Your task to perform on an android device: Clear all items from cart on bestbuy. Add "alienware area 51" to the cart on bestbuy, then select checkout. Image 0: 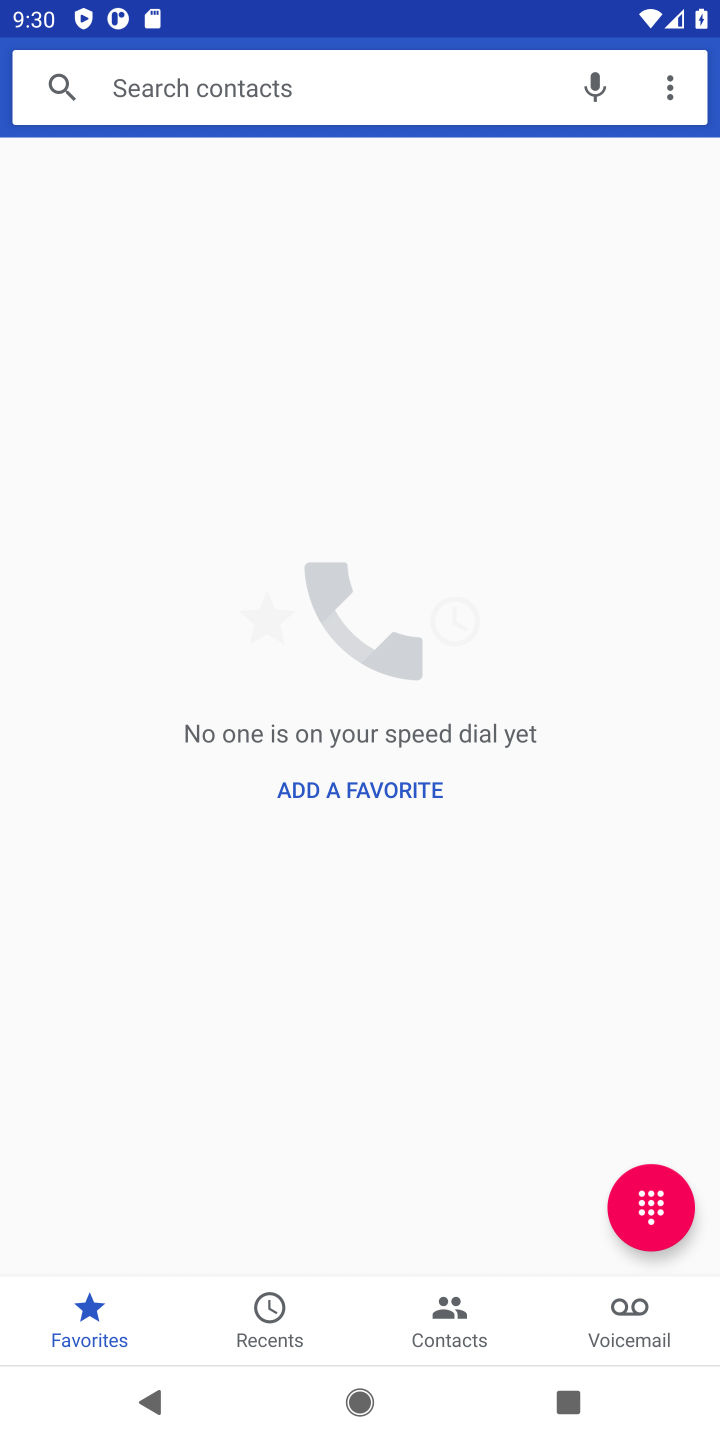
Step 0: press home button
Your task to perform on an android device: Clear all items from cart on bestbuy. Add "alienware area 51" to the cart on bestbuy, then select checkout. Image 1: 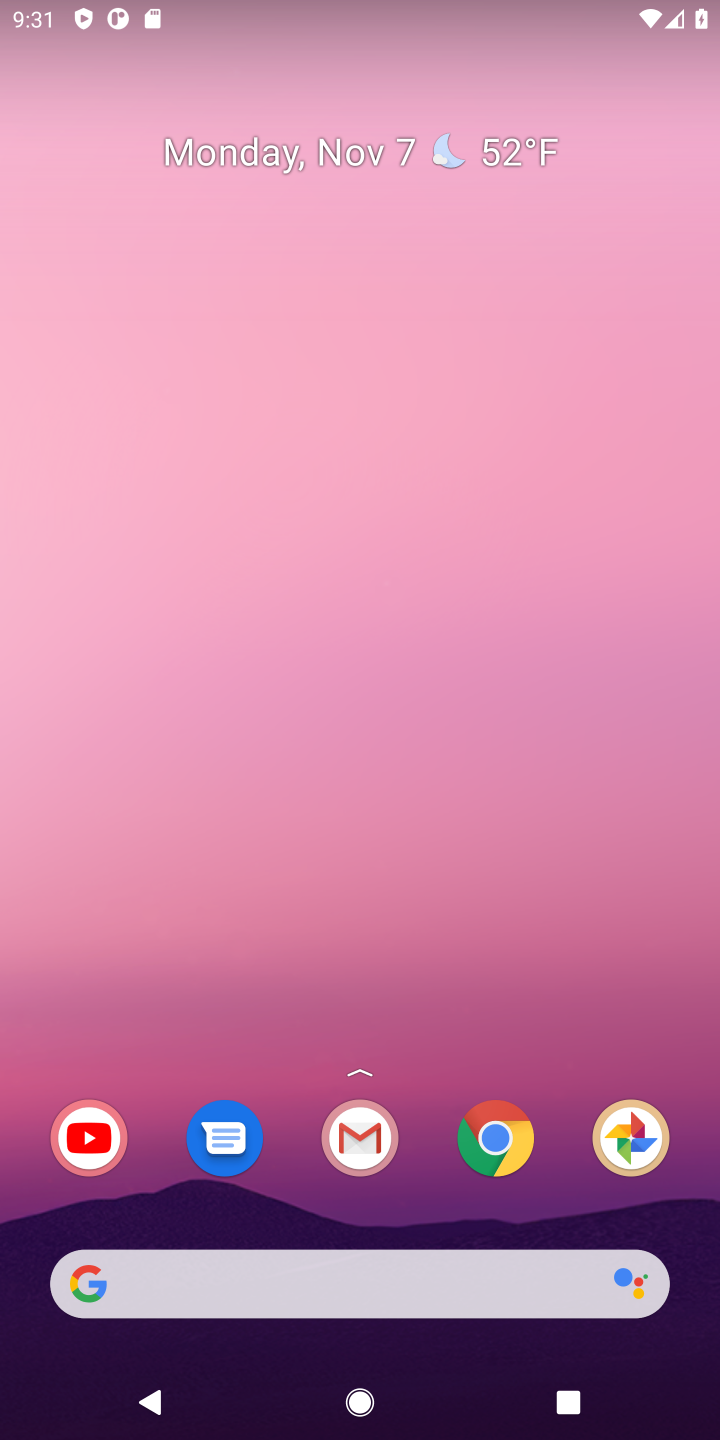
Step 1: drag from (441, 1148) to (480, 339)
Your task to perform on an android device: Clear all items from cart on bestbuy. Add "alienware area 51" to the cart on bestbuy, then select checkout. Image 2: 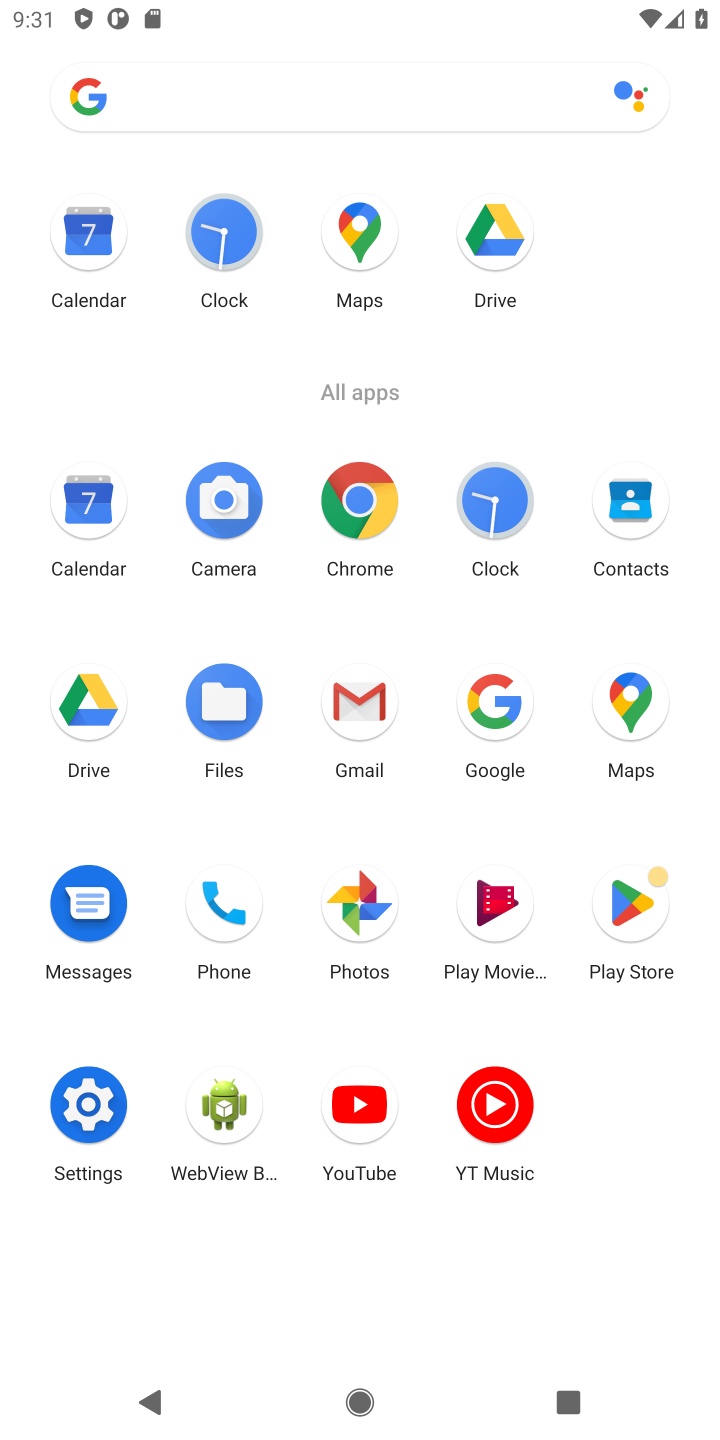
Step 2: click (499, 724)
Your task to perform on an android device: Clear all items from cart on bestbuy. Add "alienware area 51" to the cart on bestbuy, then select checkout. Image 3: 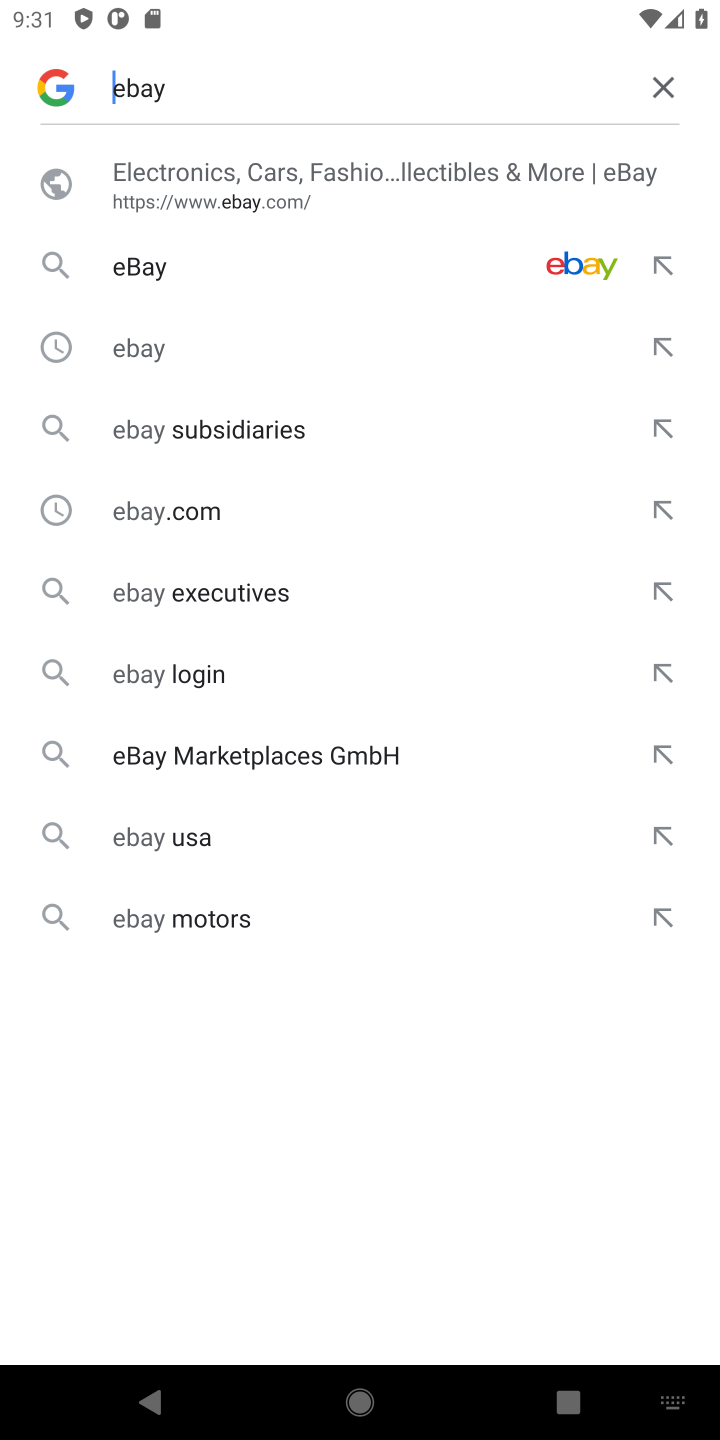
Step 3: click (672, 96)
Your task to perform on an android device: Clear all items from cart on bestbuy. Add "alienware area 51" to the cart on bestbuy, then select checkout. Image 4: 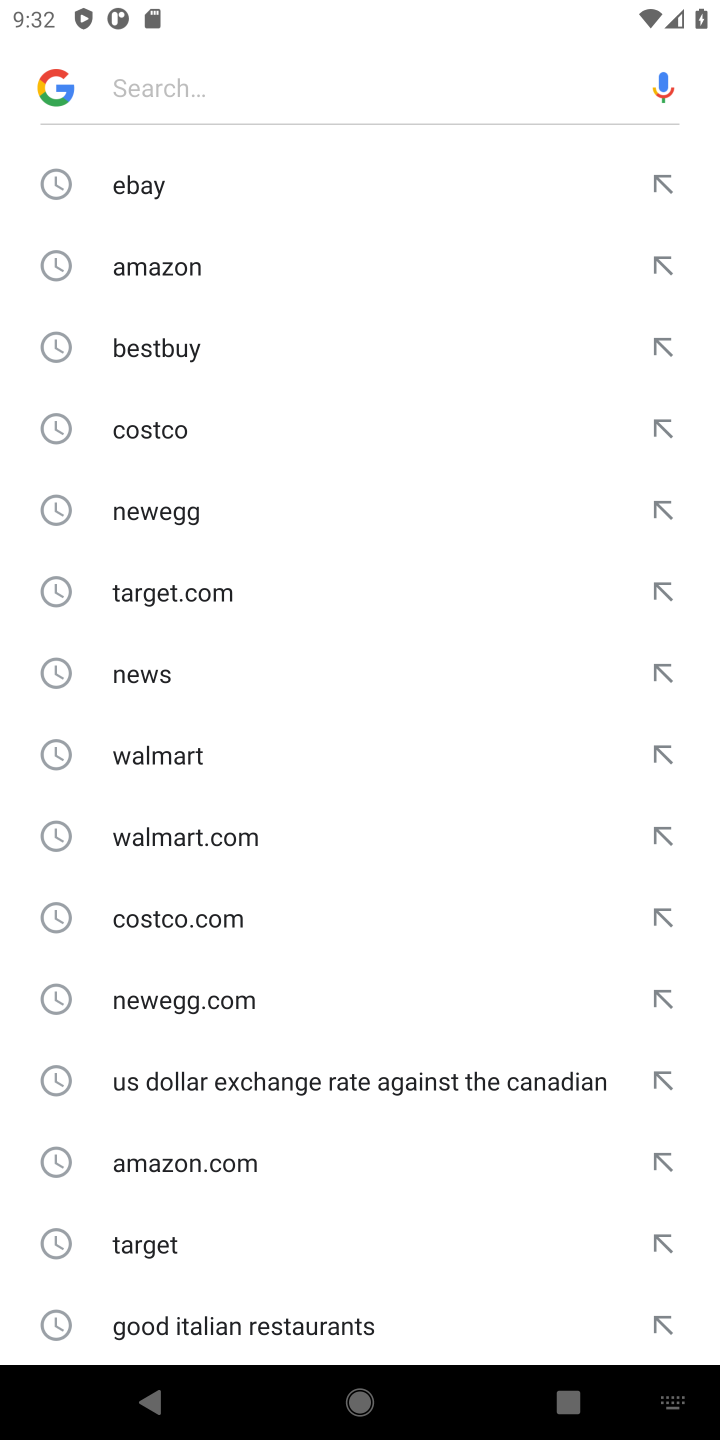
Step 4: type "bestbuy"
Your task to perform on an android device: Clear all items from cart on bestbuy. Add "alienware area 51" to the cart on bestbuy, then select checkout. Image 5: 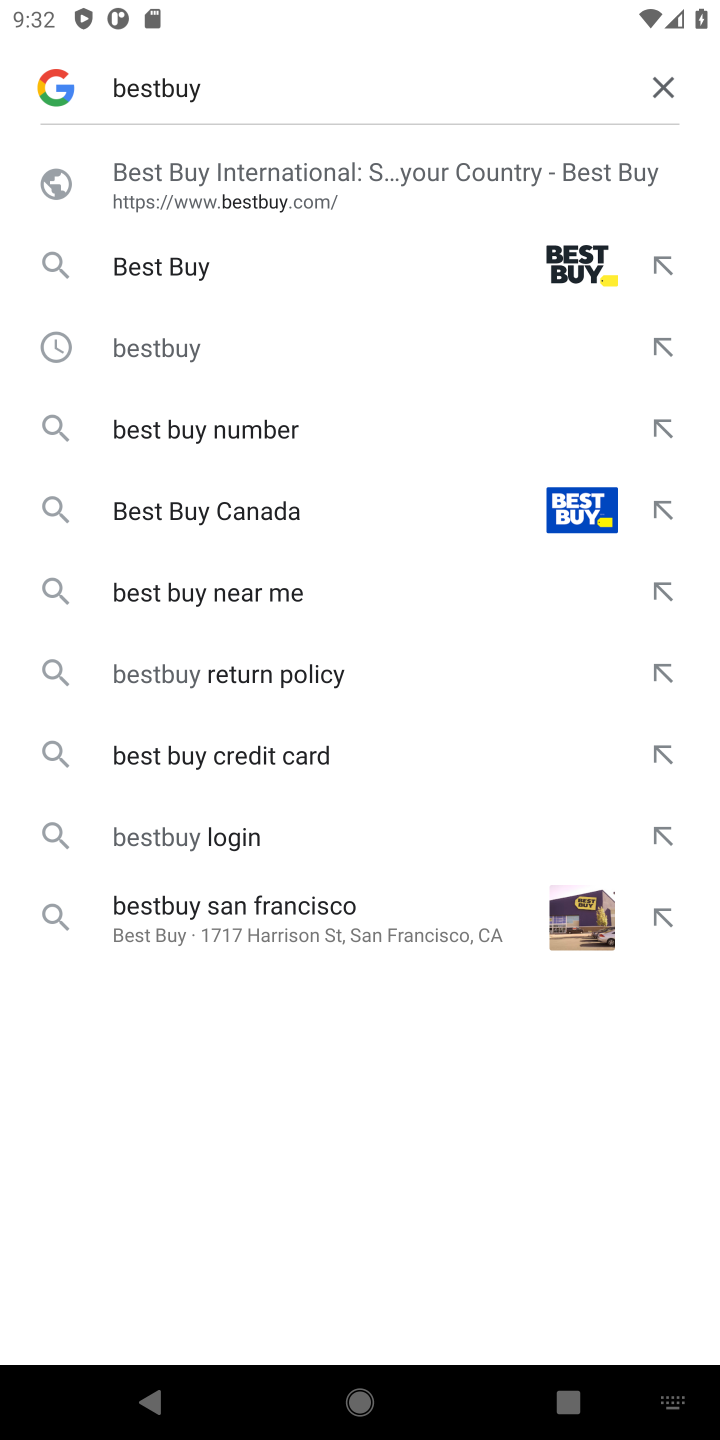
Step 5: click (272, 193)
Your task to perform on an android device: Clear all items from cart on bestbuy. Add "alienware area 51" to the cart on bestbuy, then select checkout. Image 6: 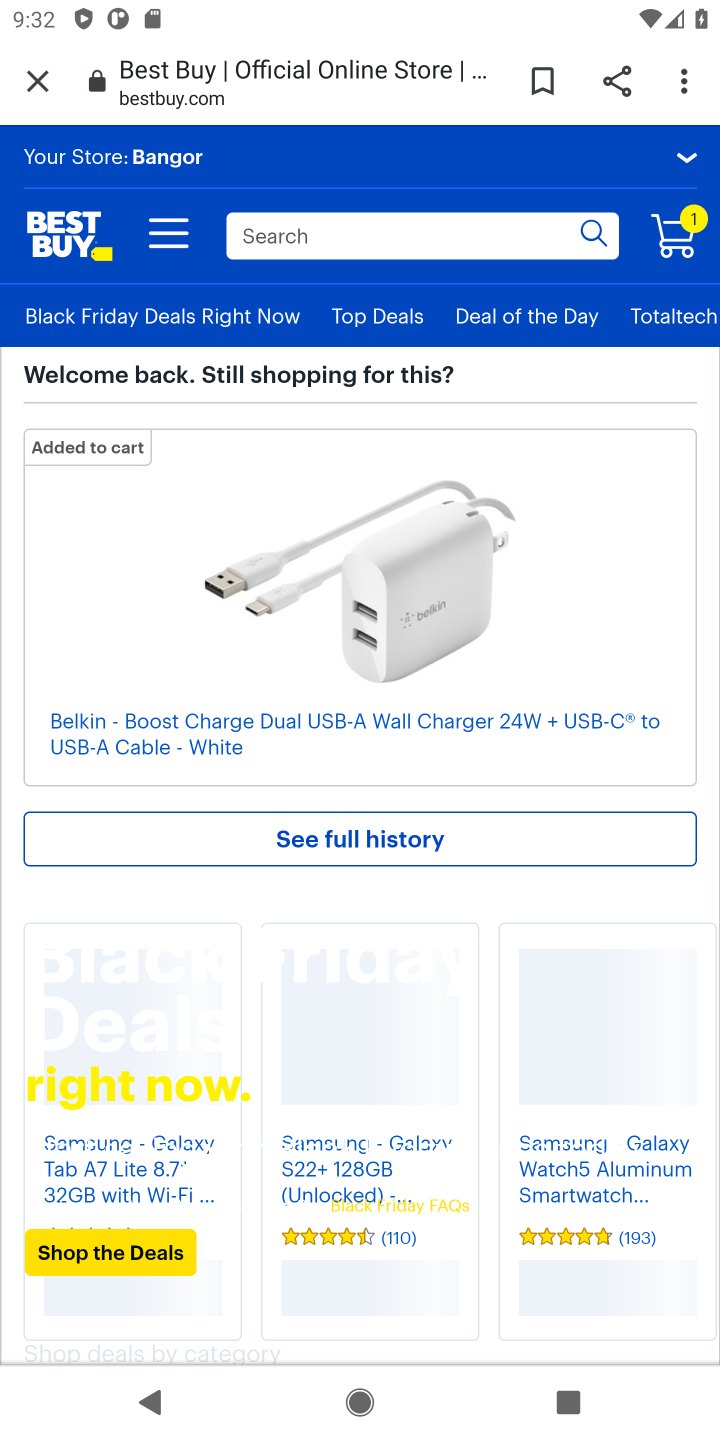
Step 6: click (365, 227)
Your task to perform on an android device: Clear all items from cart on bestbuy. Add "alienware area 51" to the cart on bestbuy, then select checkout. Image 7: 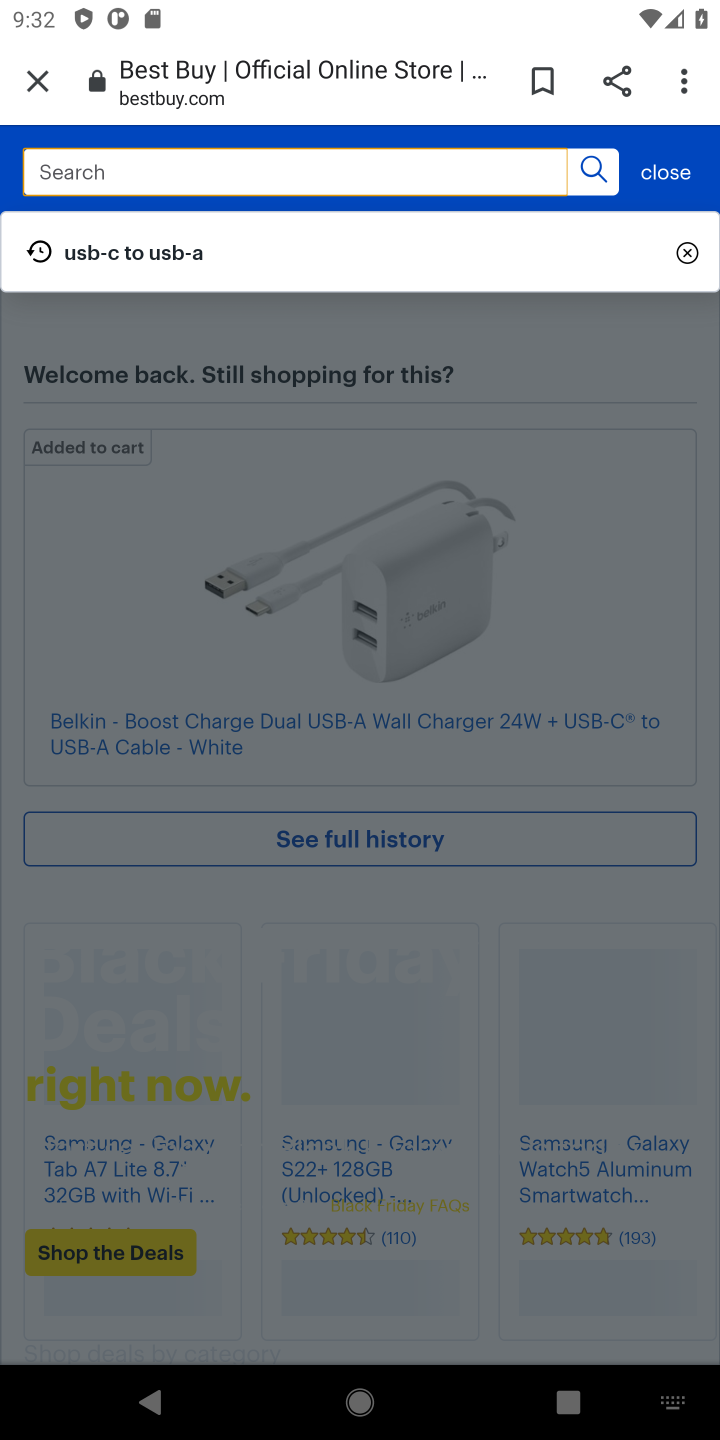
Step 7: type "alienware area 51"
Your task to perform on an android device: Clear all items from cart on bestbuy. Add "alienware area 51" to the cart on bestbuy, then select checkout. Image 8: 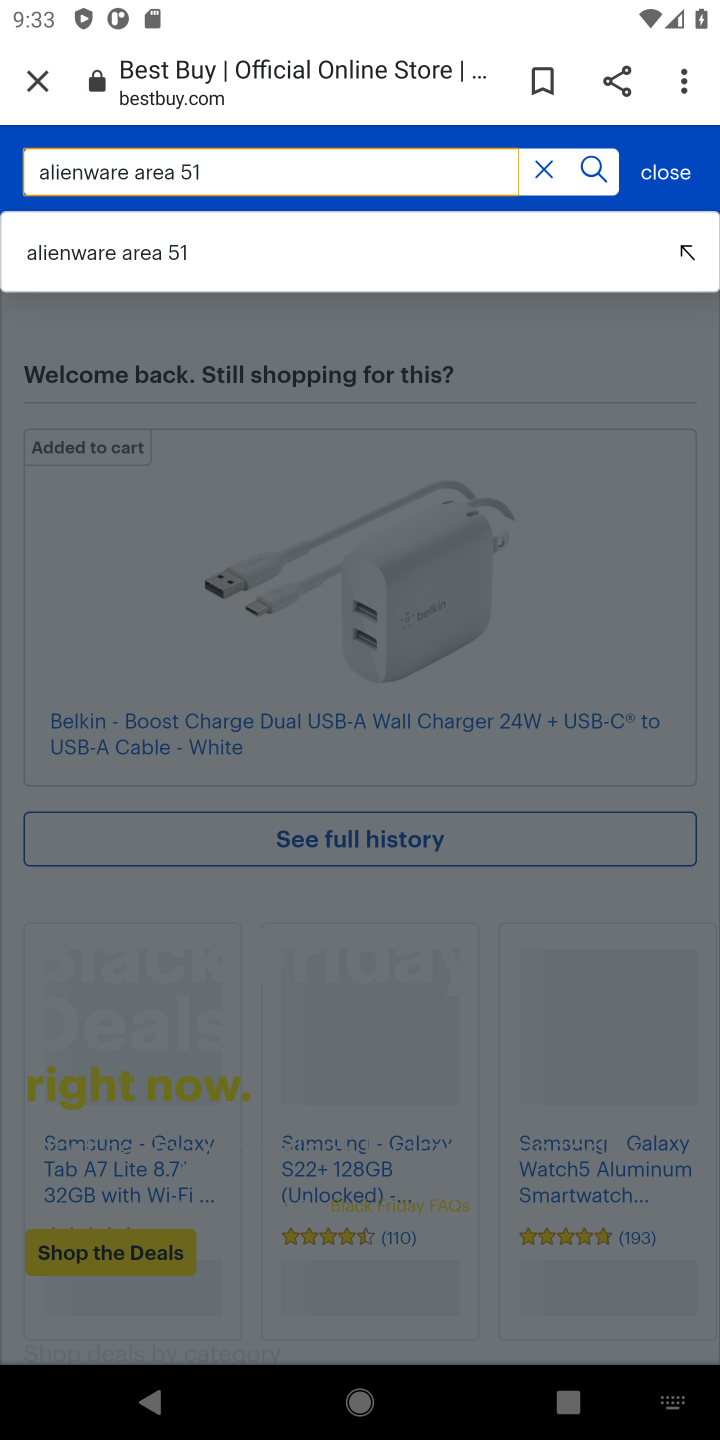
Step 8: click (284, 252)
Your task to perform on an android device: Clear all items from cart on bestbuy. Add "alienware area 51" to the cart on bestbuy, then select checkout. Image 9: 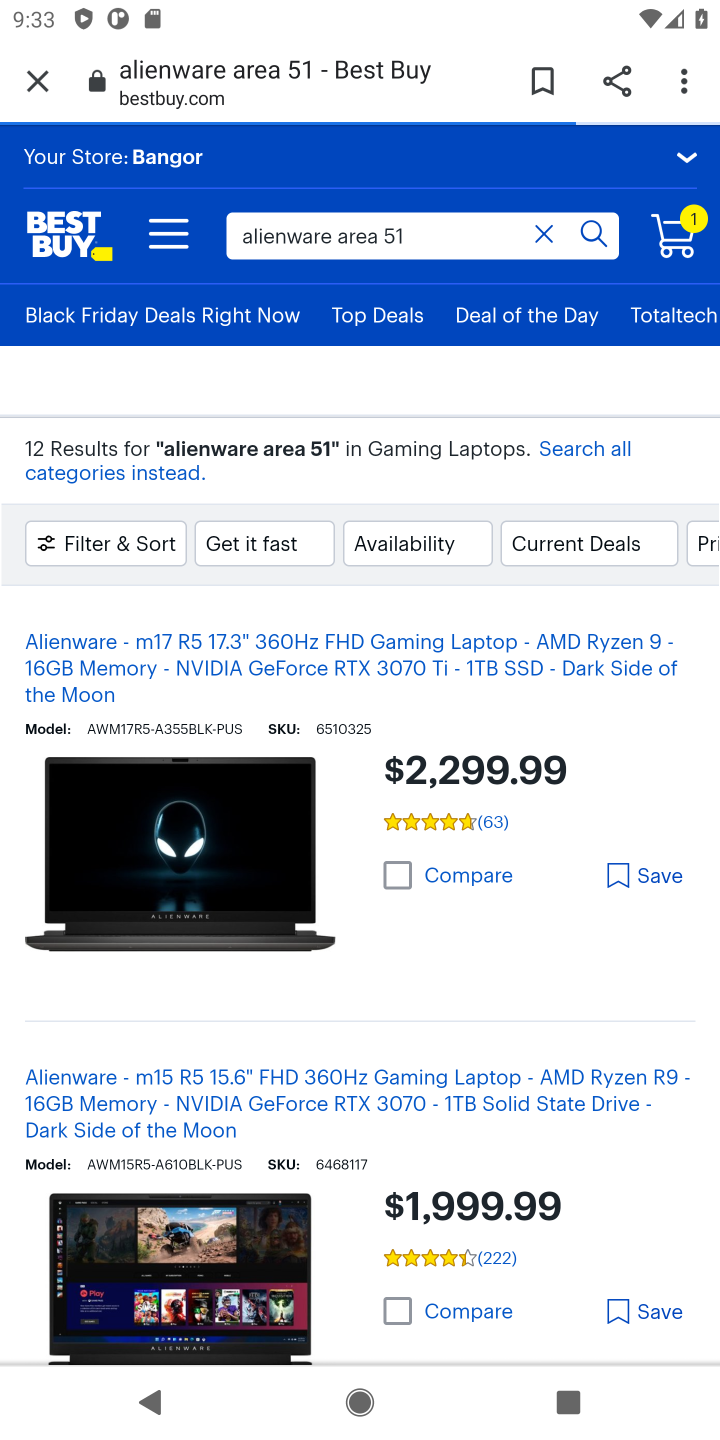
Step 9: click (258, 925)
Your task to perform on an android device: Clear all items from cart on bestbuy. Add "alienware area 51" to the cart on bestbuy, then select checkout. Image 10: 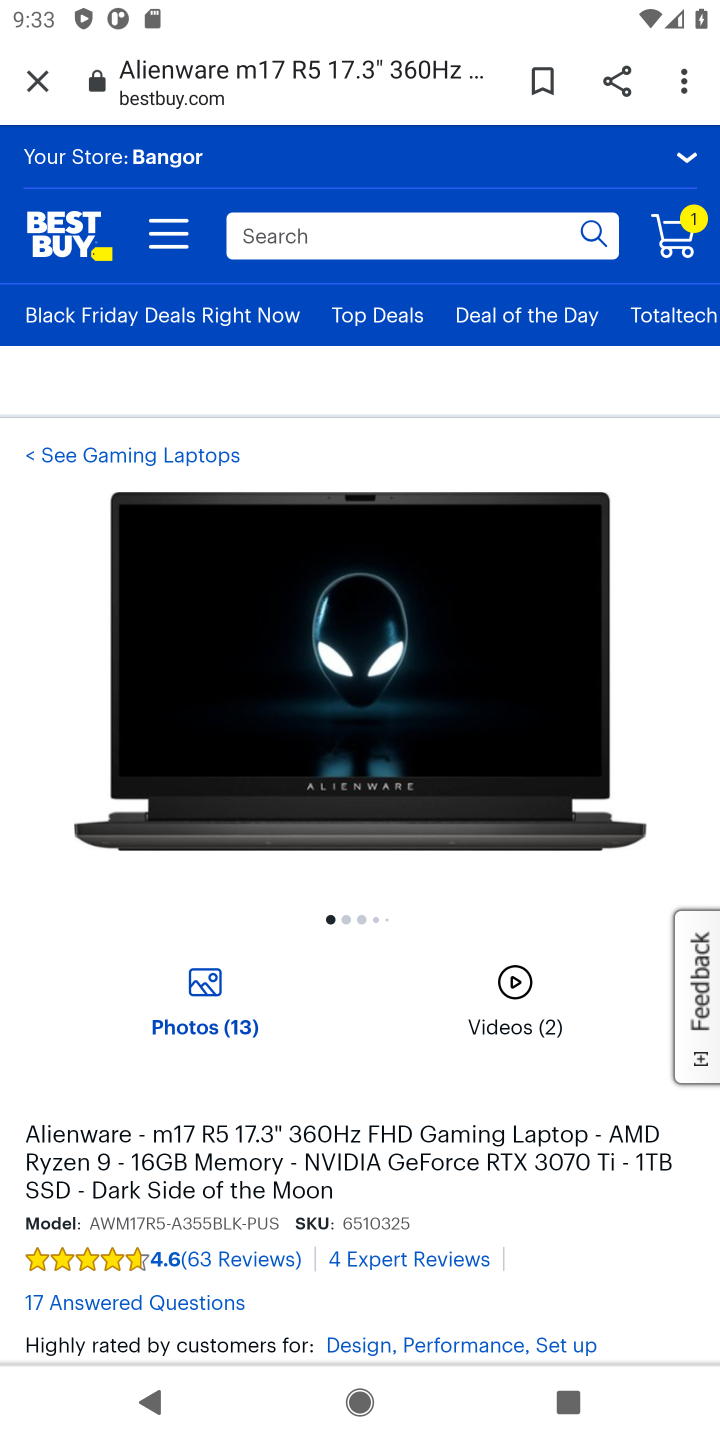
Step 10: drag from (396, 1145) to (426, 430)
Your task to perform on an android device: Clear all items from cart on bestbuy. Add "alienware area 51" to the cart on bestbuy, then select checkout. Image 11: 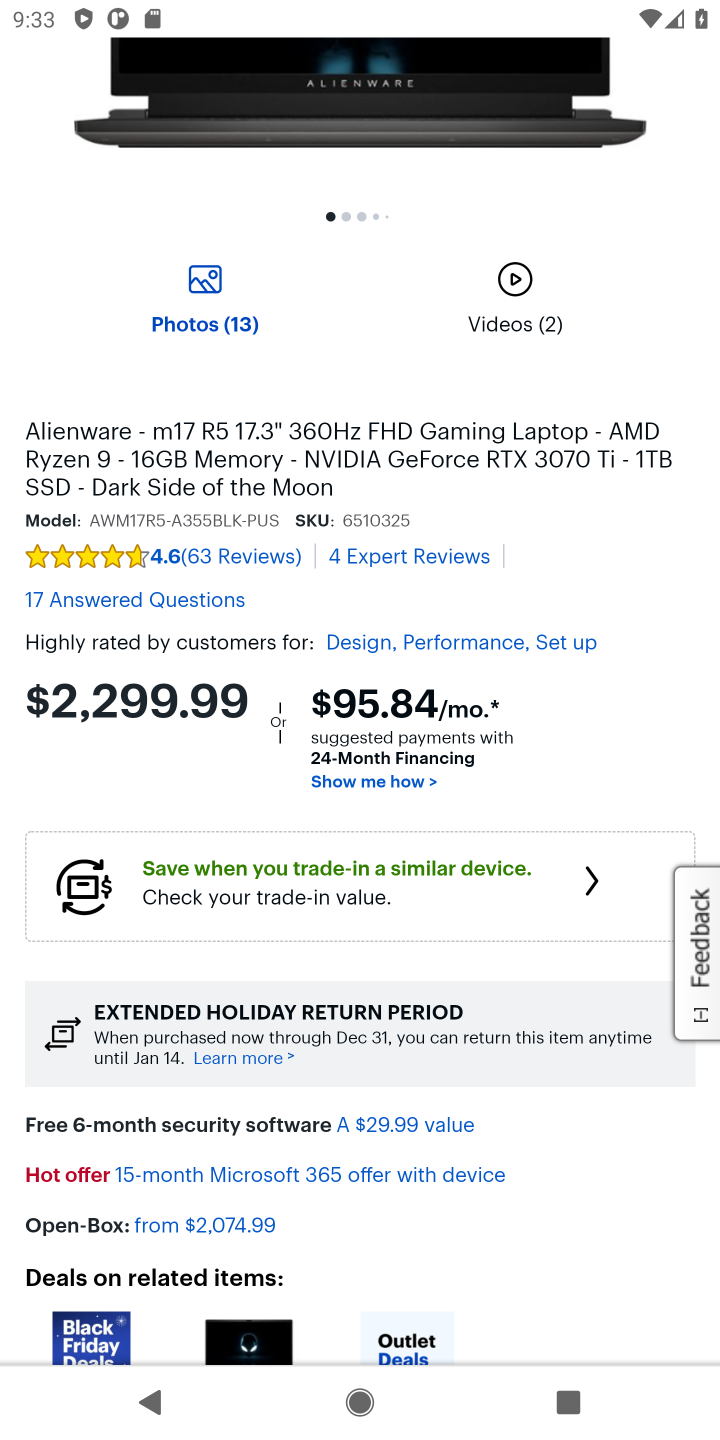
Step 11: drag from (429, 712) to (426, 396)
Your task to perform on an android device: Clear all items from cart on bestbuy. Add "alienware area 51" to the cart on bestbuy, then select checkout. Image 12: 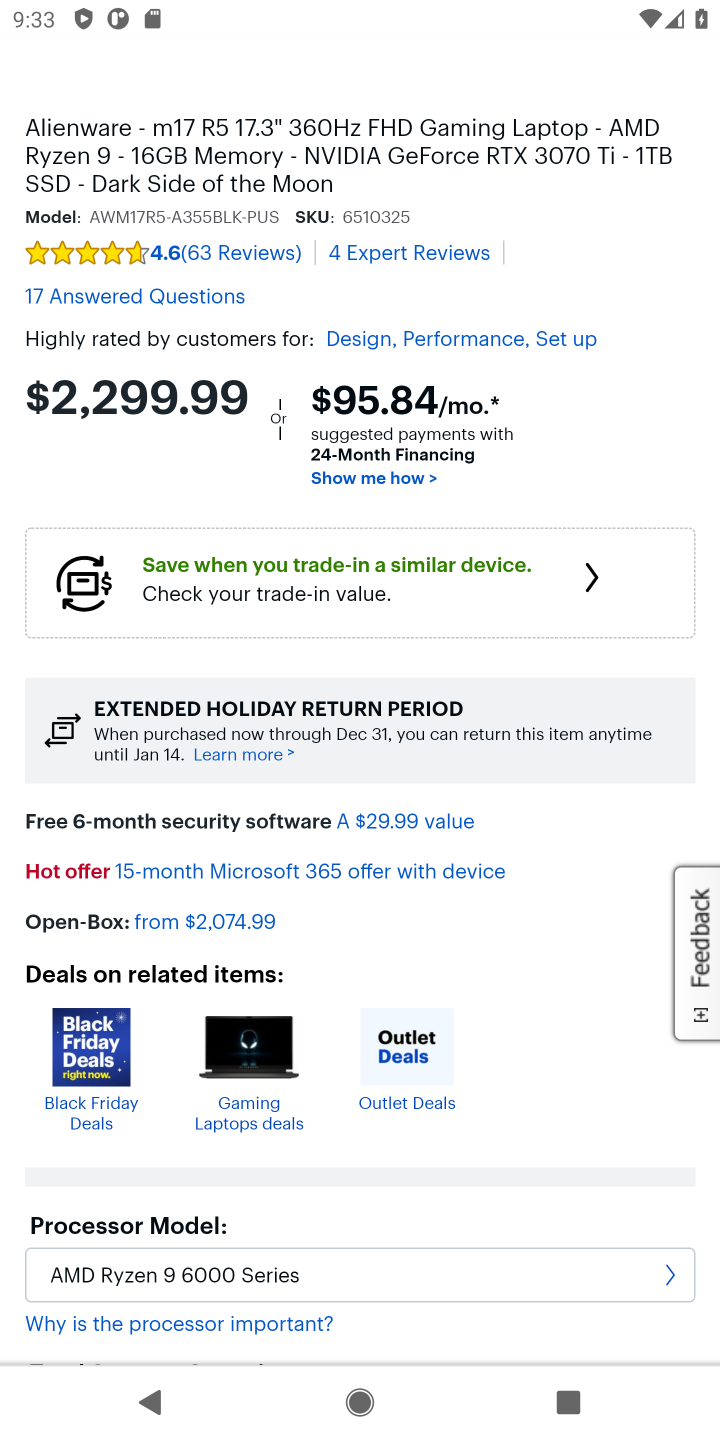
Step 12: drag from (395, 753) to (497, 208)
Your task to perform on an android device: Clear all items from cart on bestbuy. Add "alienware area 51" to the cart on bestbuy, then select checkout. Image 13: 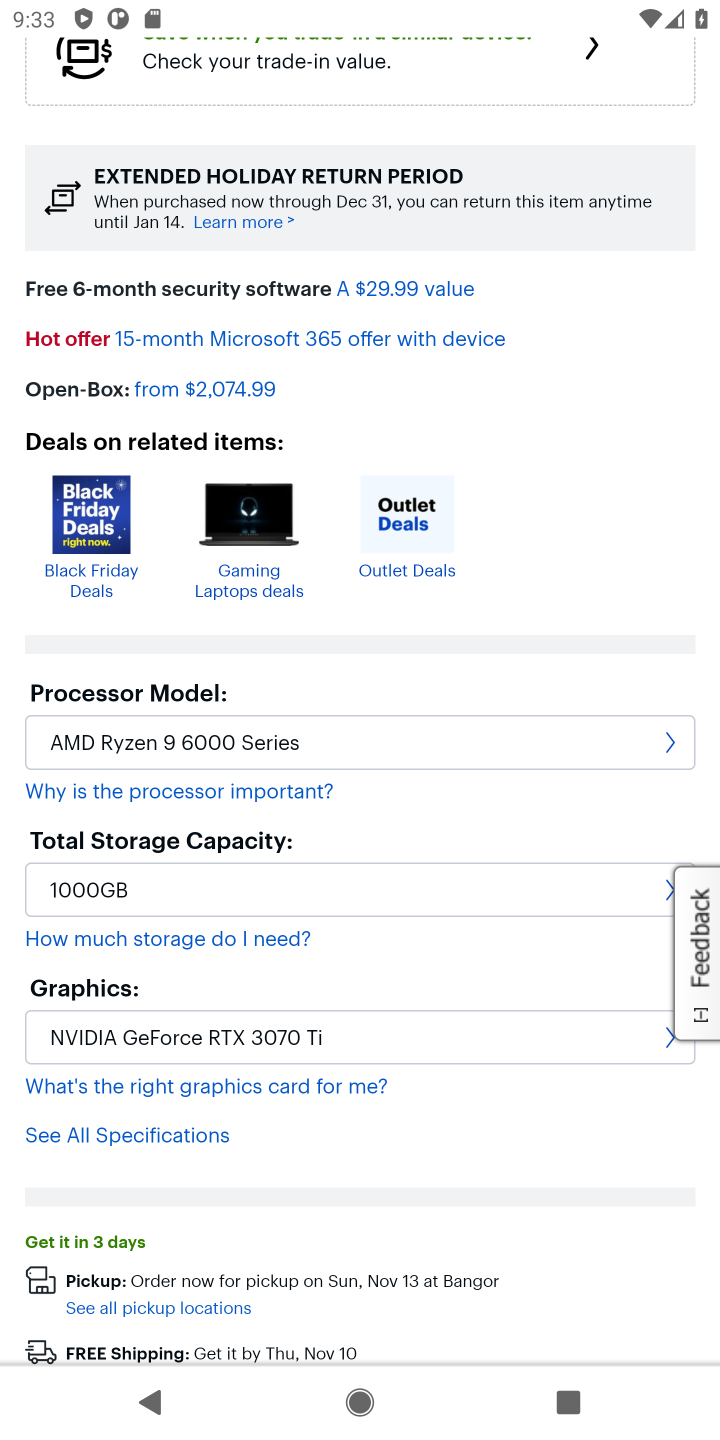
Step 13: drag from (485, 895) to (505, 479)
Your task to perform on an android device: Clear all items from cart on bestbuy. Add "alienware area 51" to the cart on bestbuy, then select checkout. Image 14: 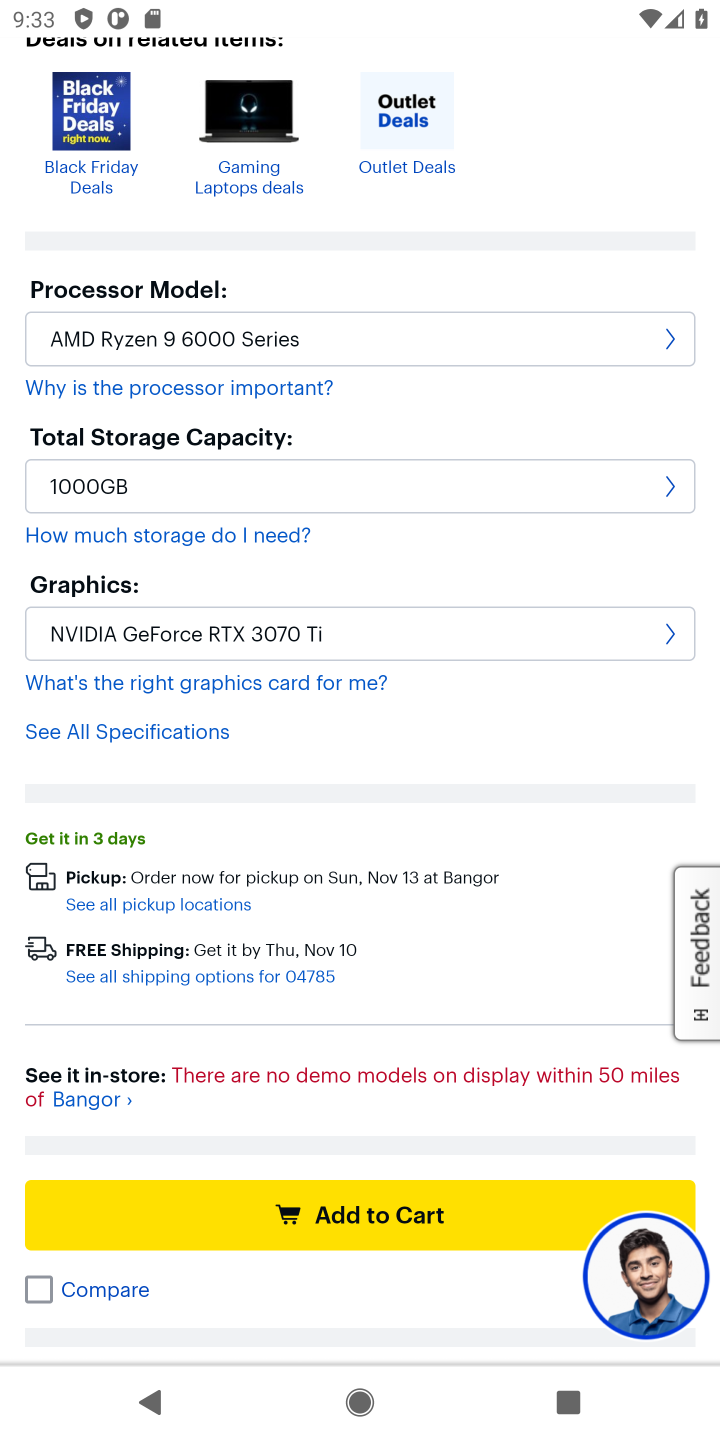
Step 14: drag from (439, 1170) to (607, 393)
Your task to perform on an android device: Clear all items from cart on bestbuy. Add "alienware area 51" to the cart on bestbuy, then select checkout. Image 15: 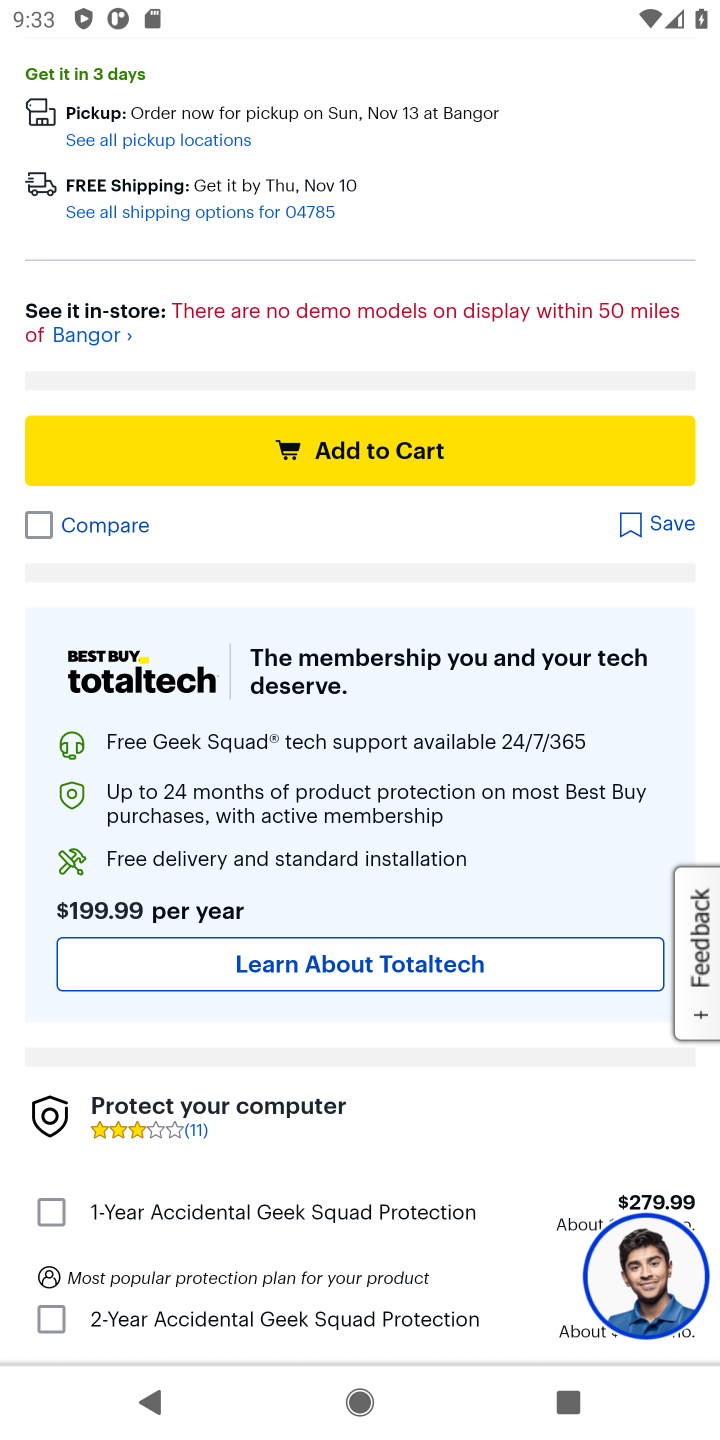
Step 15: click (380, 447)
Your task to perform on an android device: Clear all items from cart on bestbuy. Add "alienware area 51" to the cart on bestbuy, then select checkout. Image 16: 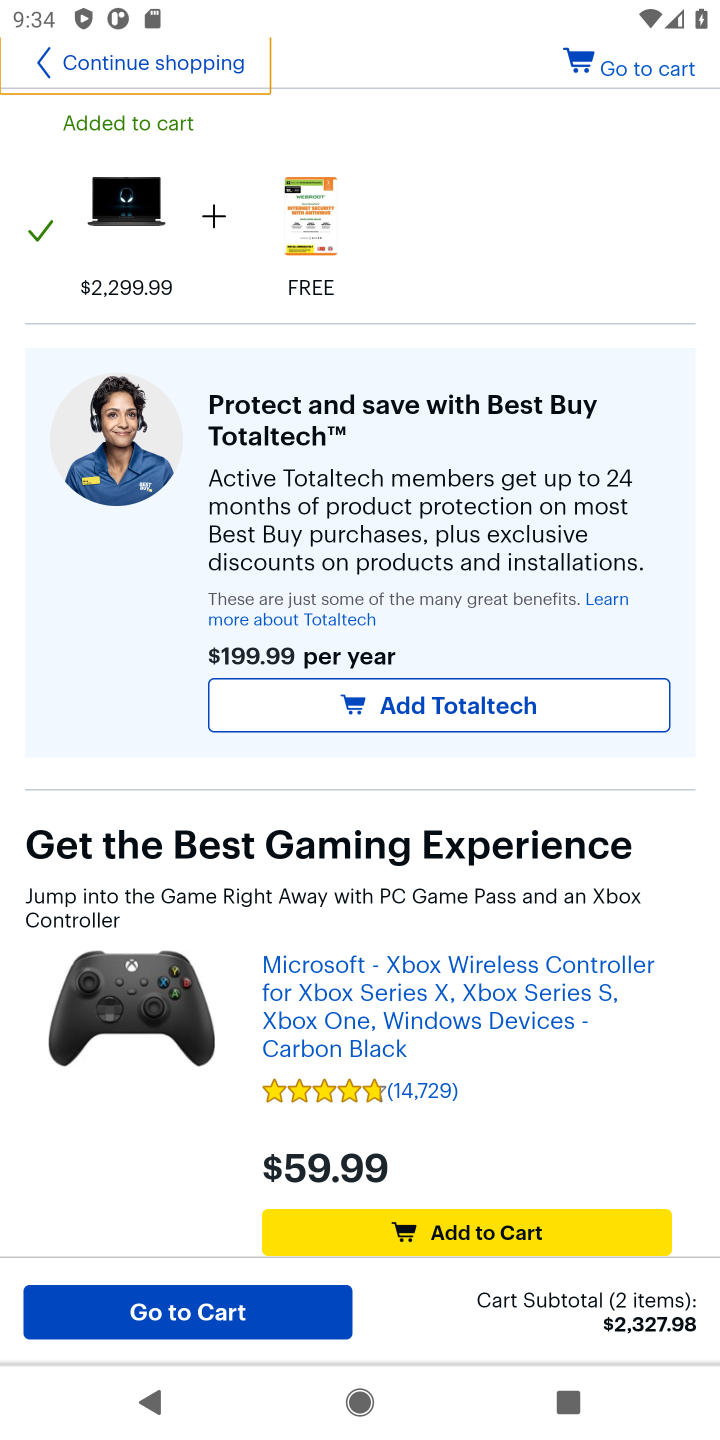
Step 16: click (217, 1328)
Your task to perform on an android device: Clear all items from cart on bestbuy. Add "alienware area 51" to the cart on bestbuy, then select checkout. Image 17: 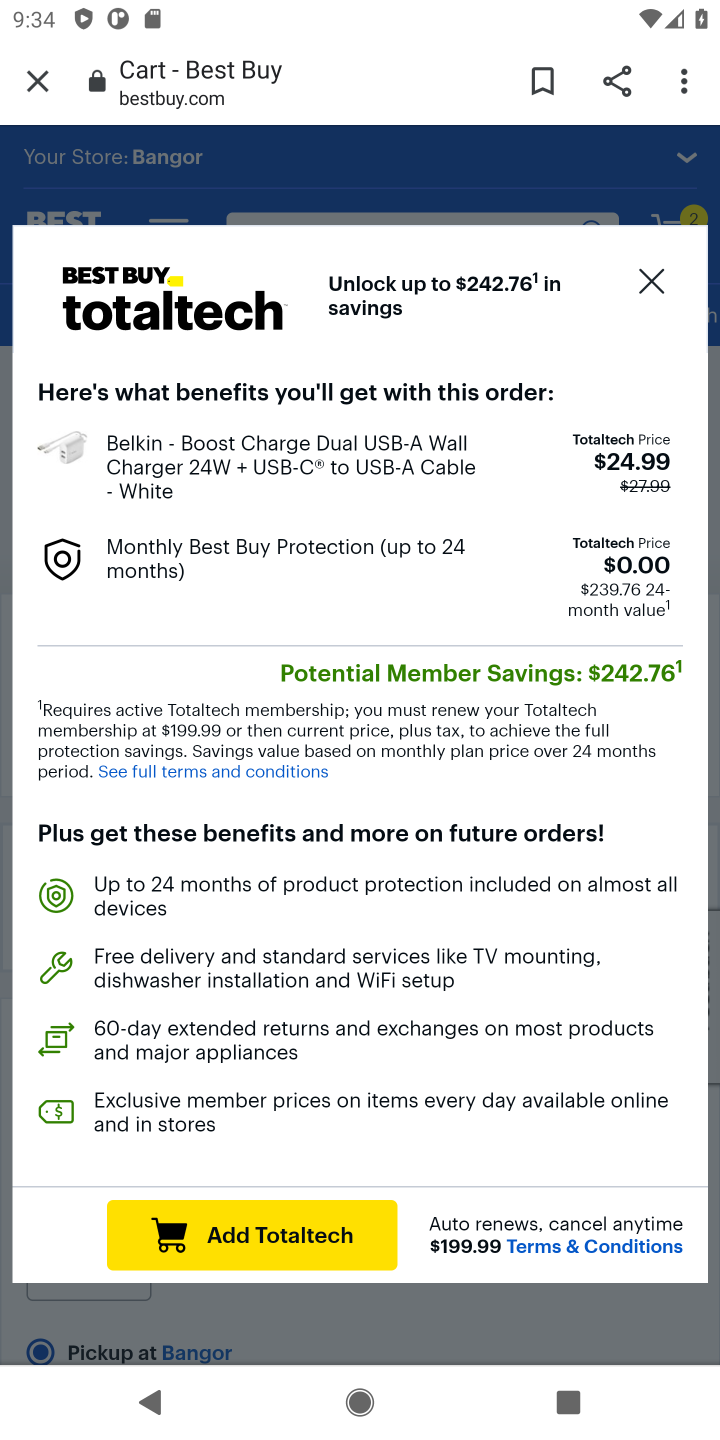
Step 17: task complete